Your task to perform on an android device: open chrome and create a bookmark for the current page Image 0: 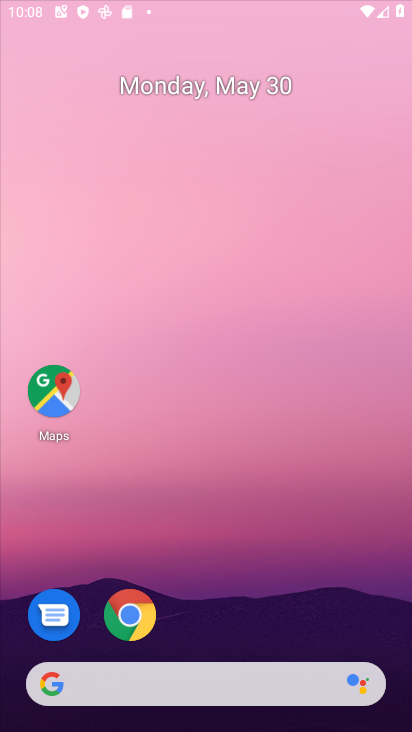
Step 0: click (213, 40)
Your task to perform on an android device: open chrome and create a bookmark for the current page Image 1: 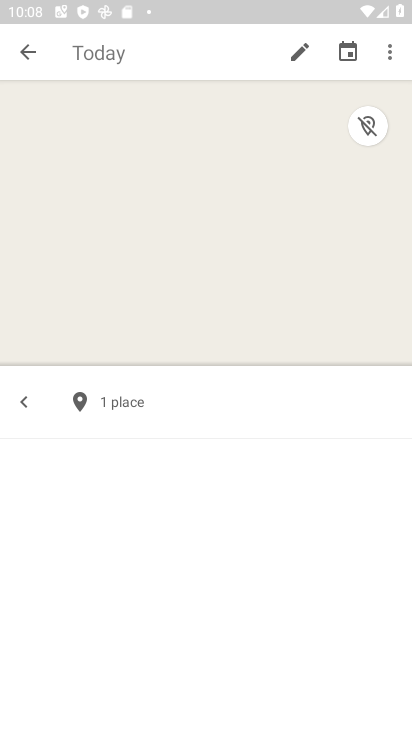
Step 1: press home button
Your task to perform on an android device: open chrome and create a bookmark for the current page Image 2: 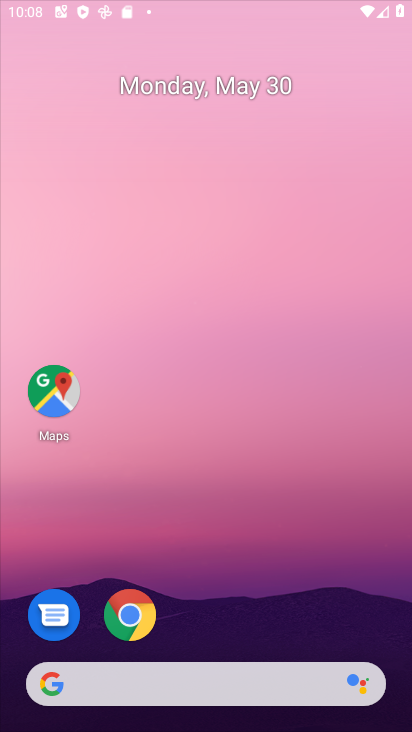
Step 2: click (126, 607)
Your task to perform on an android device: open chrome and create a bookmark for the current page Image 3: 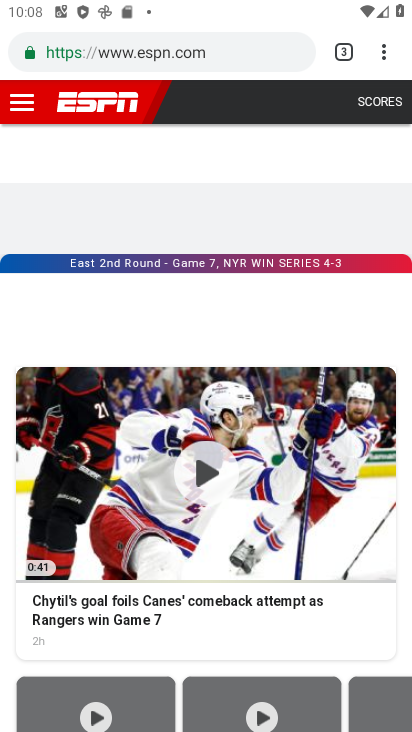
Step 3: click (387, 50)
Your task to perform on an android device: open chrome and create a bookmark for the current page Image 4: 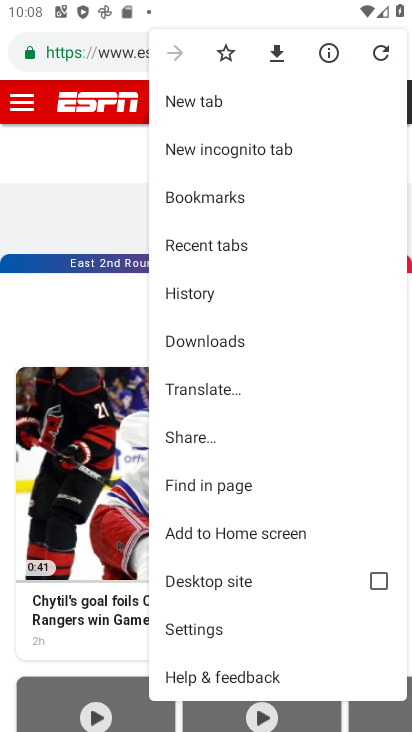
Step 4: click (215, 55)
Your task to perform on an android device: open chrome and create a bookmark for the current page Image 5: 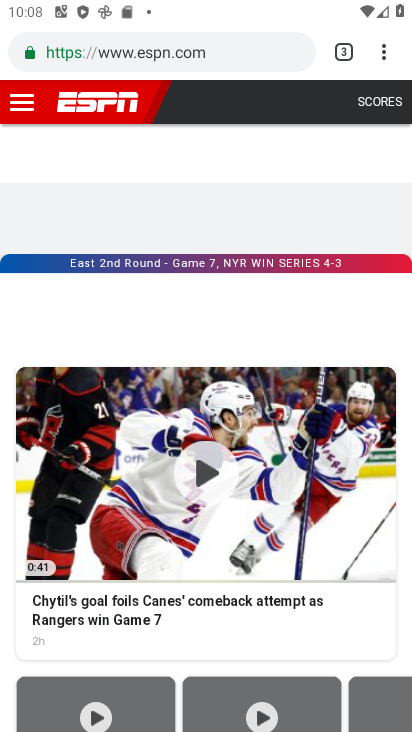
Step 5: task complete